Your task to perform on an android device: Go to CNN.com Image 0: 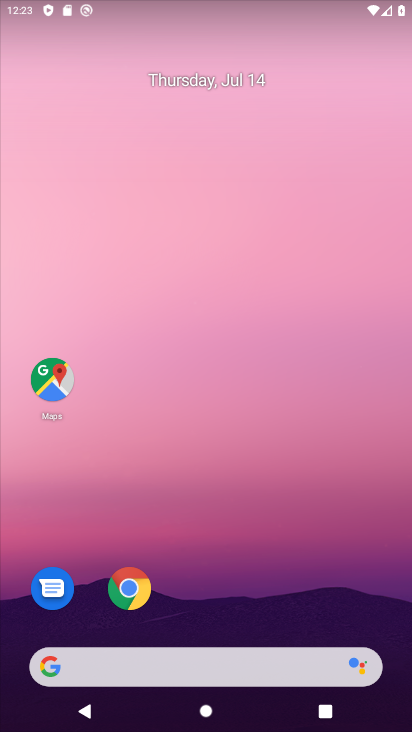
Step 0: click (260, 244)
Your task to perform on an android device: Go to CNN.com Image 1: 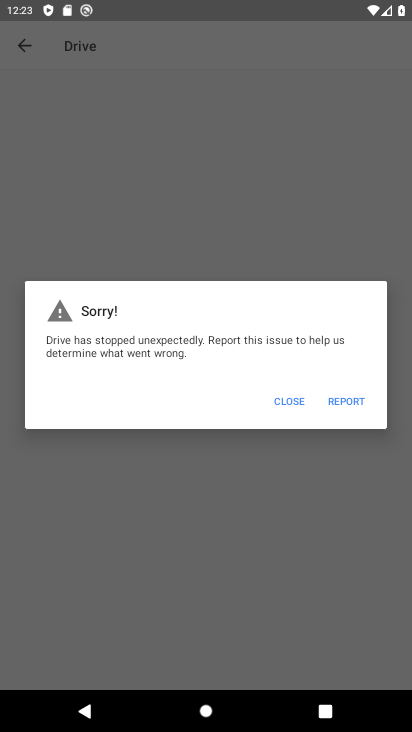
Step 1: press home button
Your task to perform on an android device: Go to CNN.com Image 2: 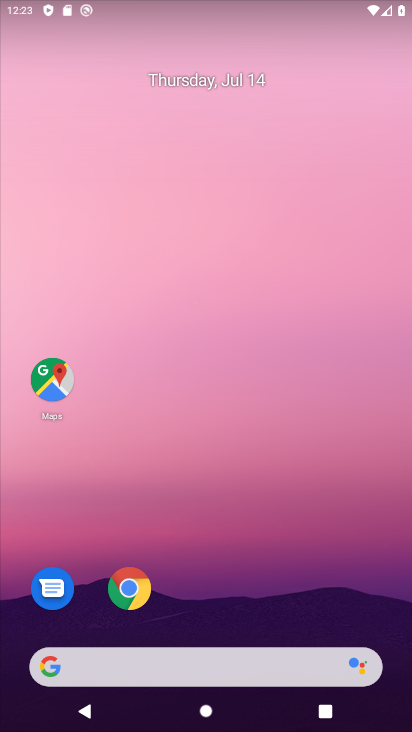
Step 2: drag from (263, 659) to (263, 263)
Your task to perform on an android device: Go to CNN.com Image 3: 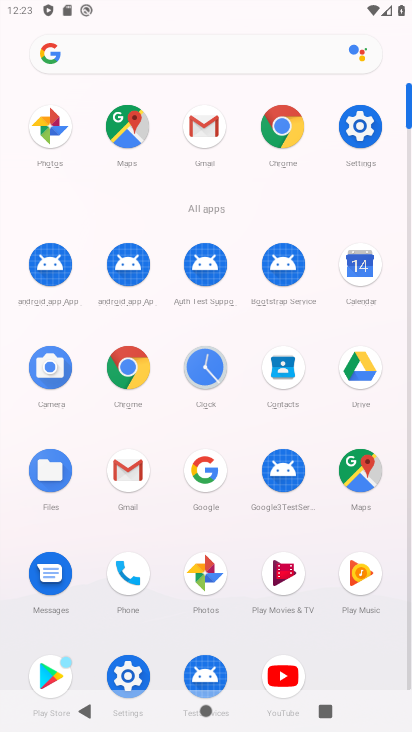
Step 3: click (276, 104)
Your task to perform on an android device: Go to CNN.com Image 4: 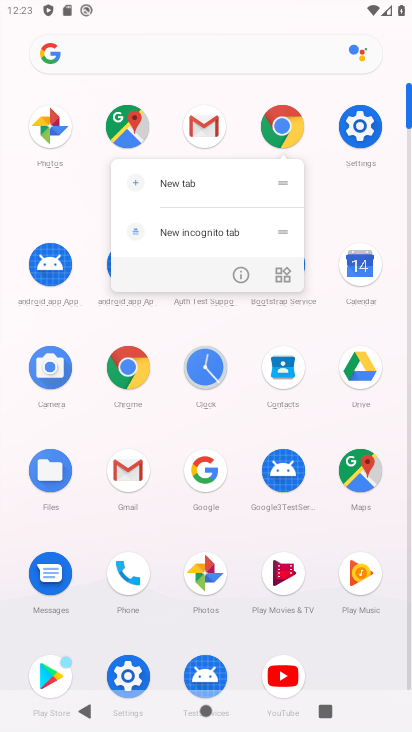
Step 4: click (275, 119)
Your task to perform on an android device: Go to CNN.com Image 5: 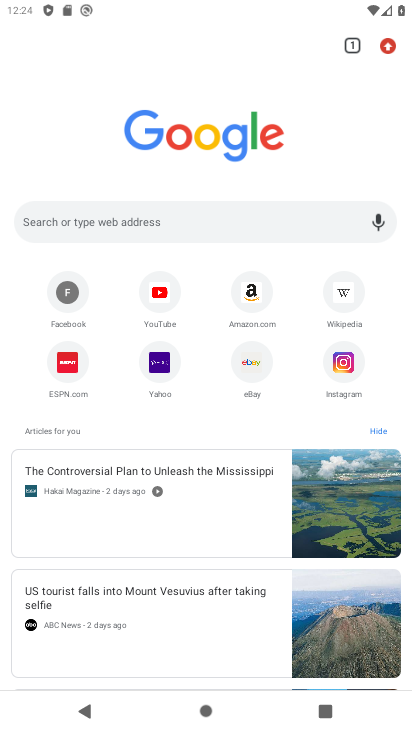
Step 5: click (133, 211)
Your task to perform on an android device: Go to CNN.com Image 6: 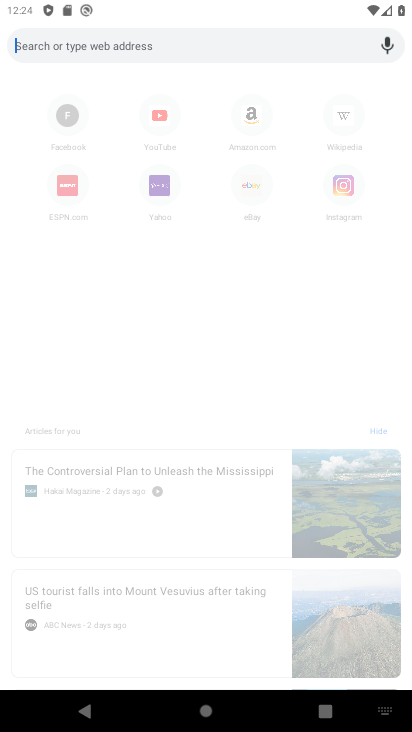
Step 6: type " CNN.com "
Your task to perform on an android device: Go to CNN.com Image 7: 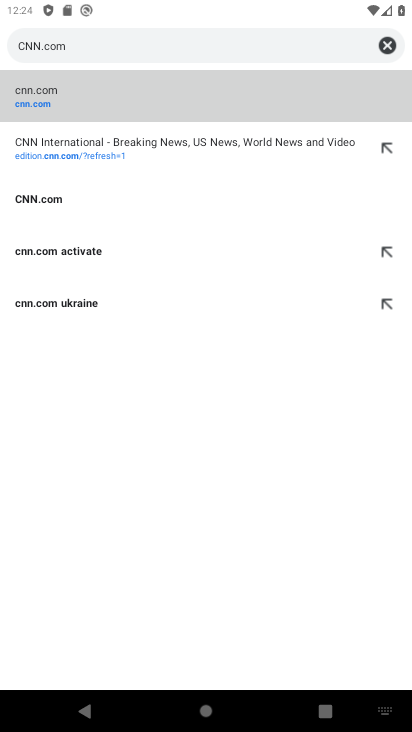
Step 7: click (305, 99)
Your task to perform on an android device: Go to CNN.com Image 8: 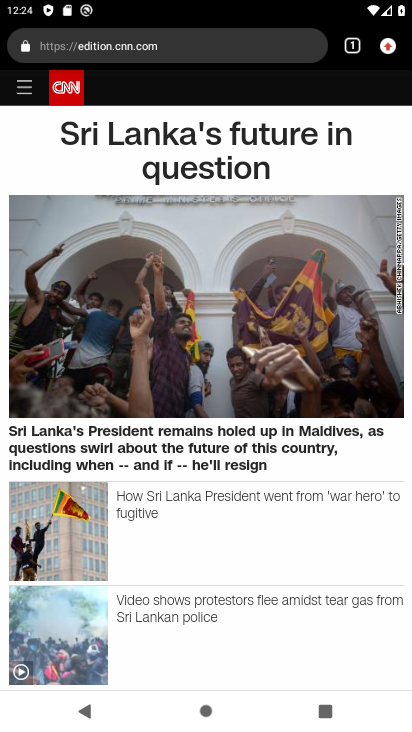
Step 8: task complete